Your task to perform on an android device: Open notification settings Image 0: 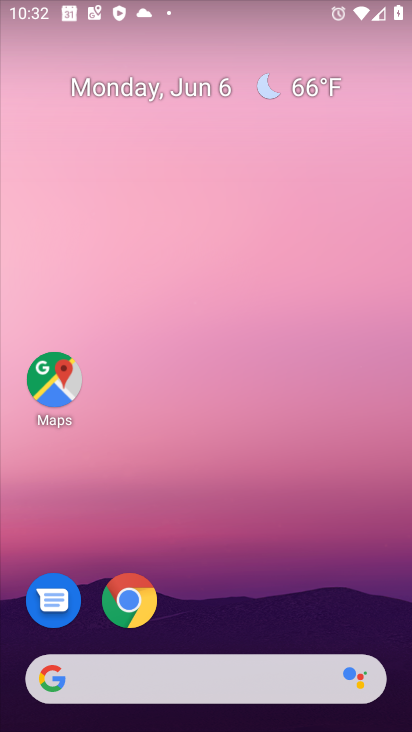
Step 0: press home button
Your task to perform on an android device: Open notification settings Image 1: 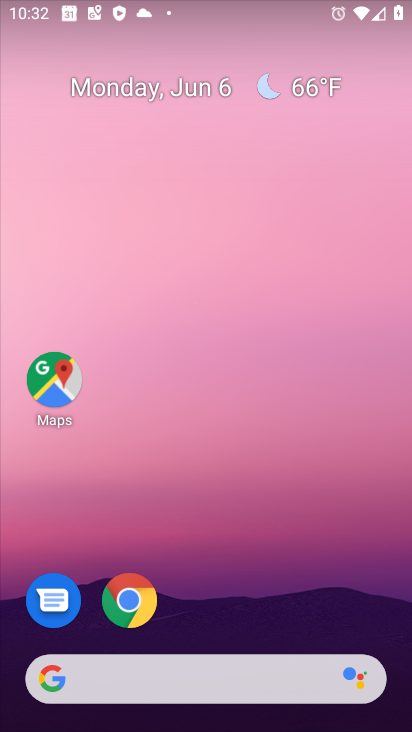
Step 1: drag from (6, 722) to (291, 161)
Your task to perform on an android device: Open notification settings Image 2: 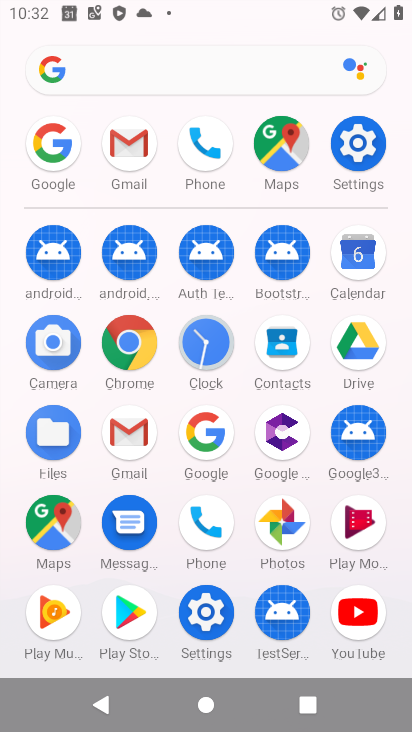
Step 2: click (355, 138)
Your task to perform on an android device: Open notification settings Image 3: 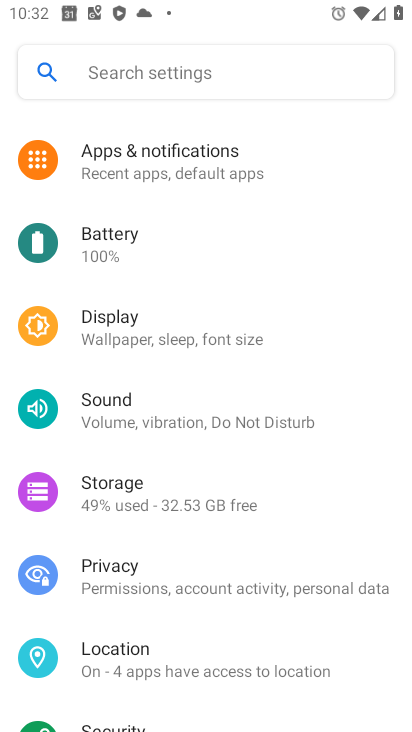
Step 3: click (264, 170)
Your task to perform on an android device: Open notification settings Image 4: 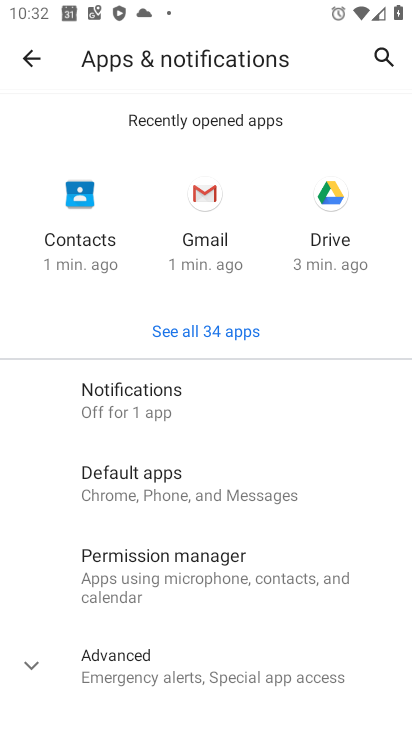
Step 4: task complete